Your task to perform on an android device: Do I have any events today? Image 0: 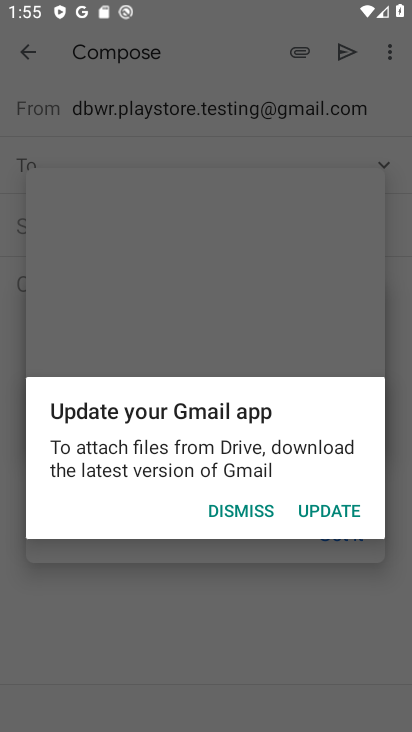
Step 0: press home button
Your task to perform on an android device: Do I have any events today? Image 1: 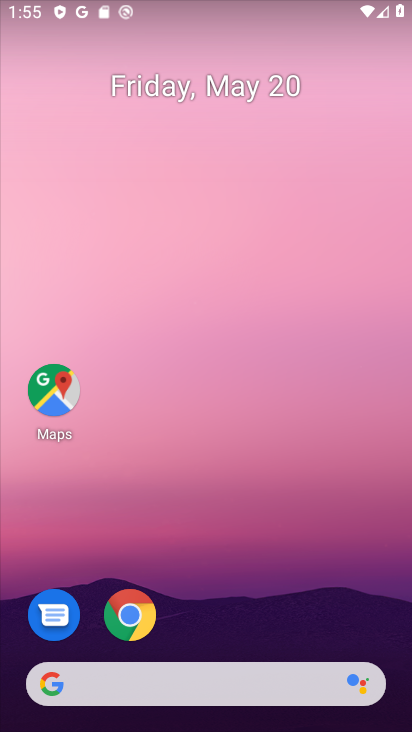
Step 1: drag from (282, 613) to (200, 144)
Your task to perform on an android device: Do I have any events today? Image 2: 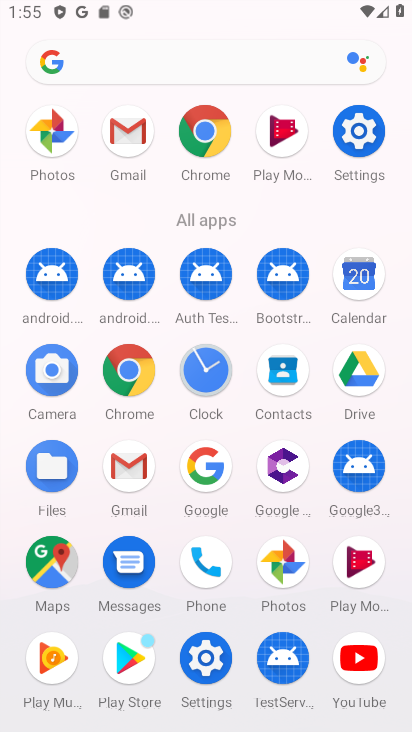
Step 2: click (366, 270)
Your task to perform on an android device: Do I have any events today? Image 3: 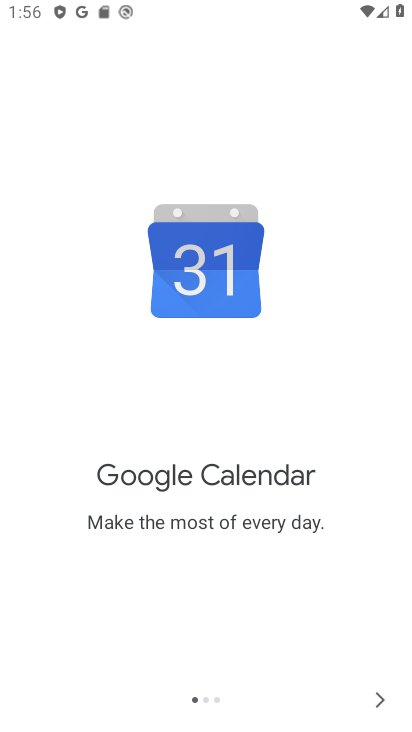
Step 3: click (386, 704)
Your task to perform on an android device: Do I have any events today? Image 4: 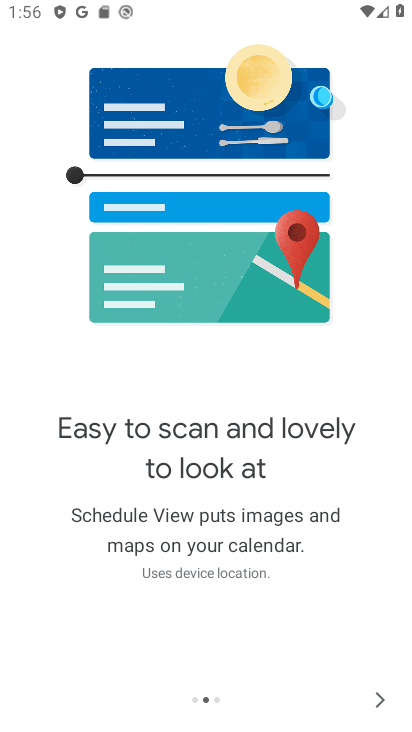
Step 4: click (386, 704)
Your task to perform on an android device: Do I have any events today? Image 5: 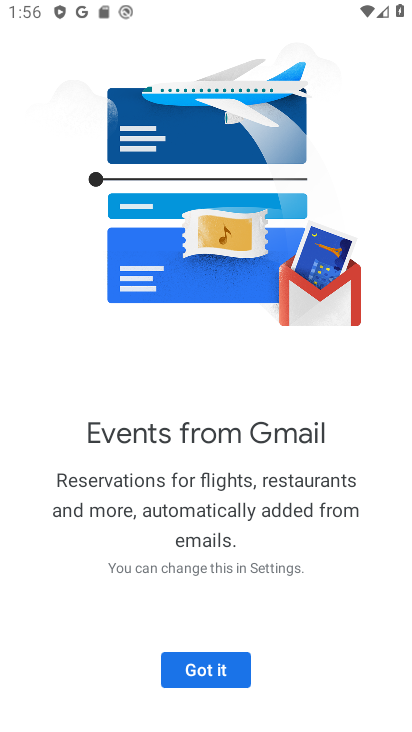
Step 5: click (233, 680)
Your task to perform on an android device: Do I have any events today? Image 6: 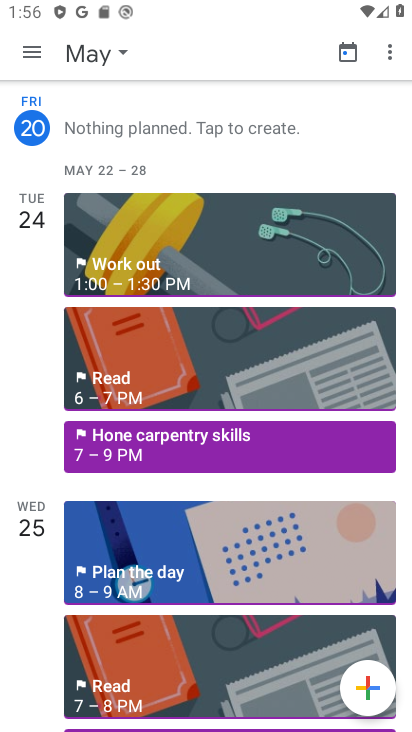
Step 6: task complete